Your task to perform on an android device: change the clock display to analog Image 0: 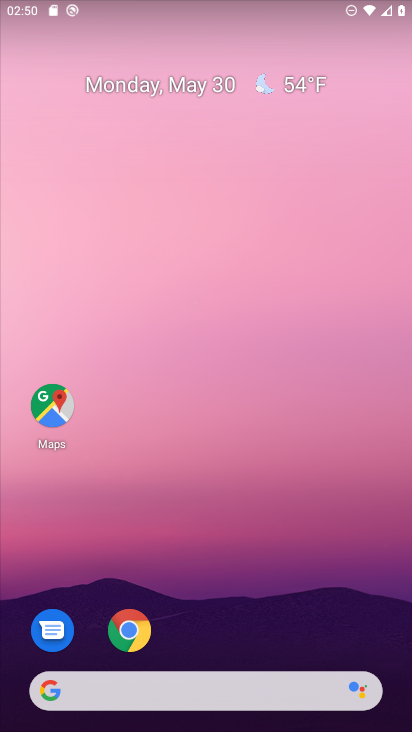
Step 0: press home button
Your task to perform on an android device: change the clock display to analog Image 1: 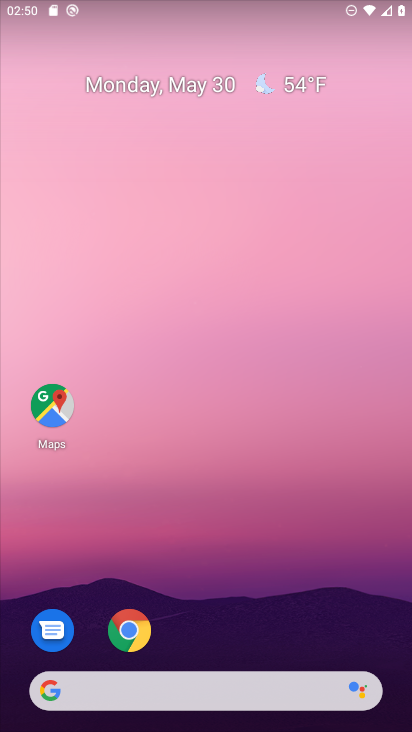
Step 1: drag from (128, 702) to (314, 251)
Your task to perform on an android device: change the clock display to analog Image 2: 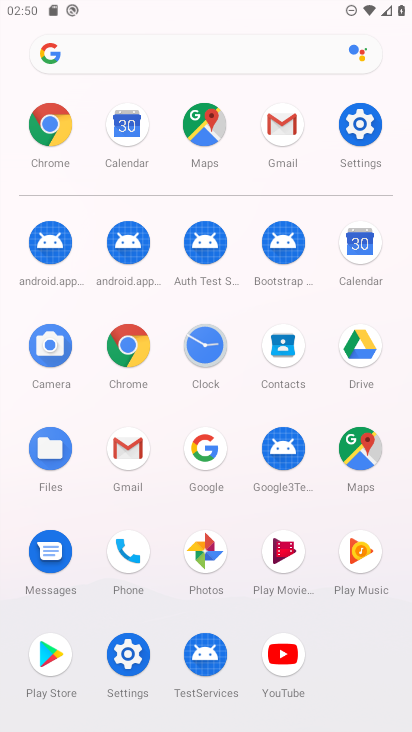
Step 2: click (204, 355)
Your task to perform on an android device: change the clock display to analog Image 3: 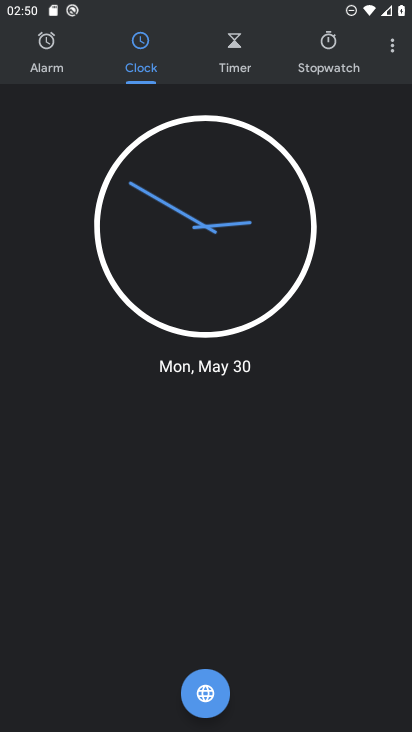
Step 3: click (388, 54)
Your task to perform on an android device: change the clock display to analog Image 4: 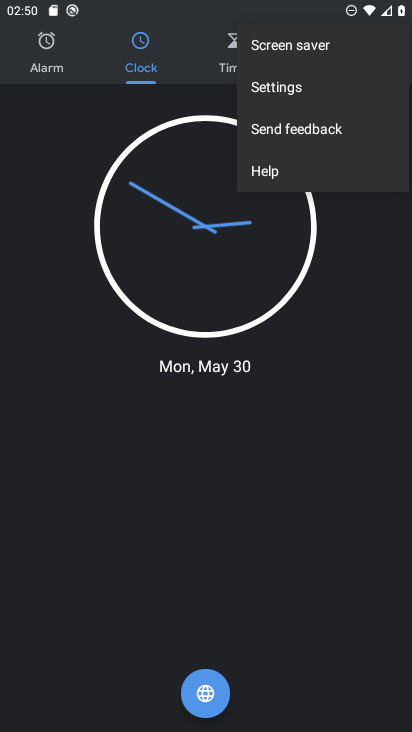
Step 4: click (301, 96)
Your task to perform on an android device: change the clock display to analog Image 5: 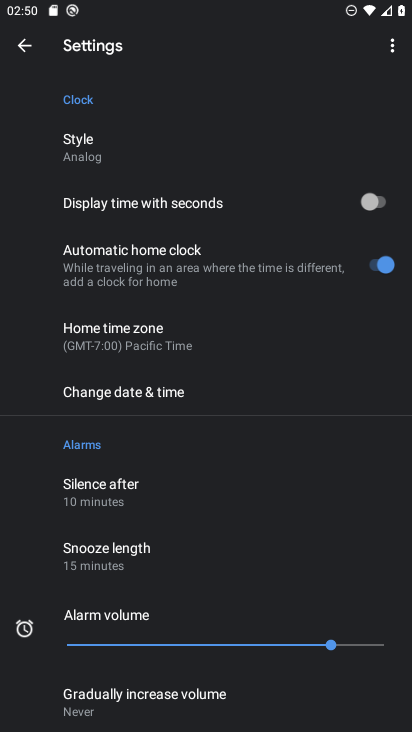
Step 5: click (88, 175)
Your task to perform on an android device: change the clock display to analog Image 6: 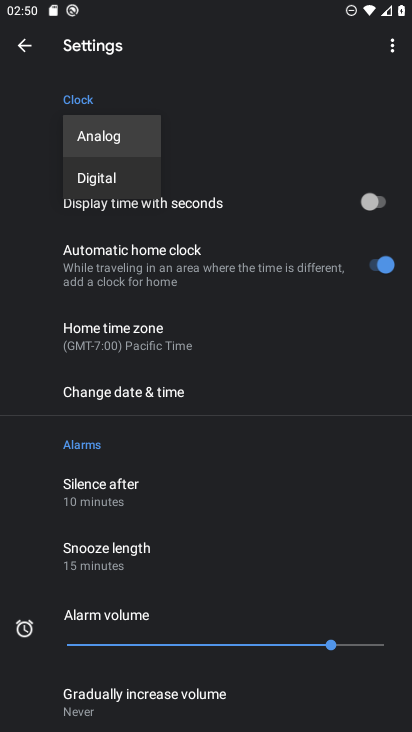
Step 6: task complete